Your task to perform on an android device: Is it going to rain this weekend? Image 0: 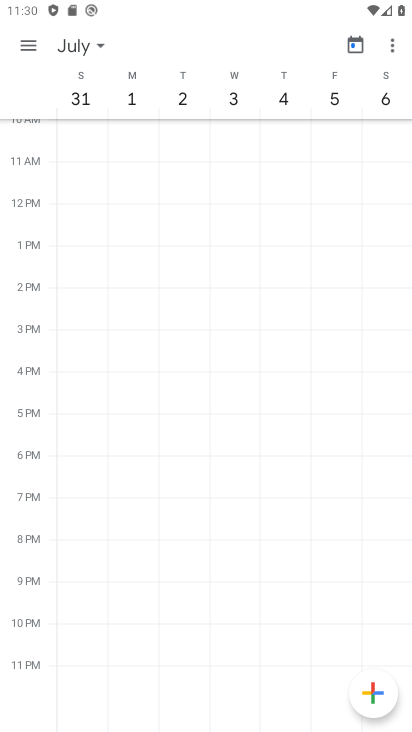
Step 0: press home button
Your task to perform on an android device: Is it going to rain this weekend? Image 1: 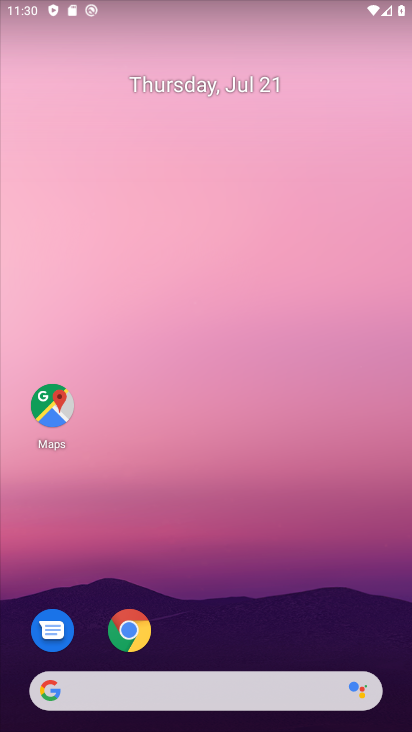
Step 1: click (44, 684)
Your task to perform on an android device: Is it going to rain this weekend? Image 2: 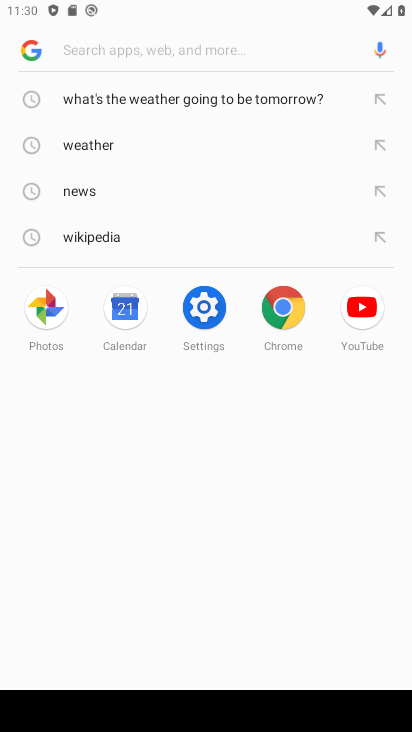
Step 2: type "Is it going to rain this weekend?"
Your task to perform on an android device: Is it going to rain this weekend? Image 3: 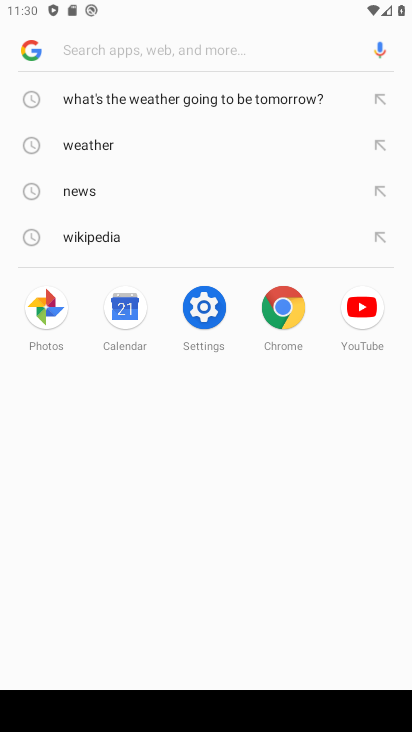
Step 3: click (140, 47)
Your task to perform on an android device: Is it going to rain this weekend? Image 4: 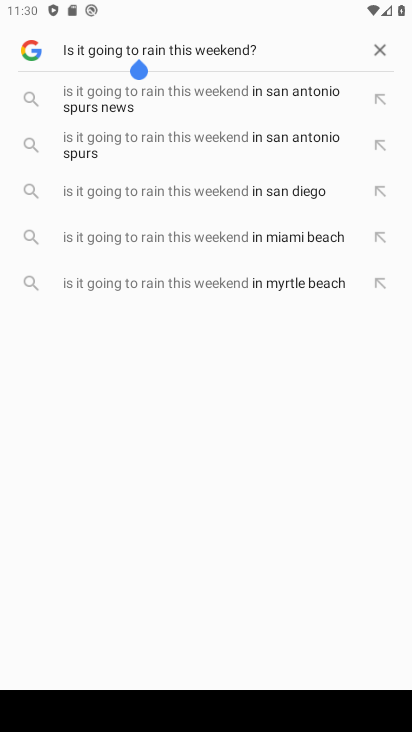
Step 4: press enter
Your task to perform on an android device: Is it going to rain this weekend? Image 5: 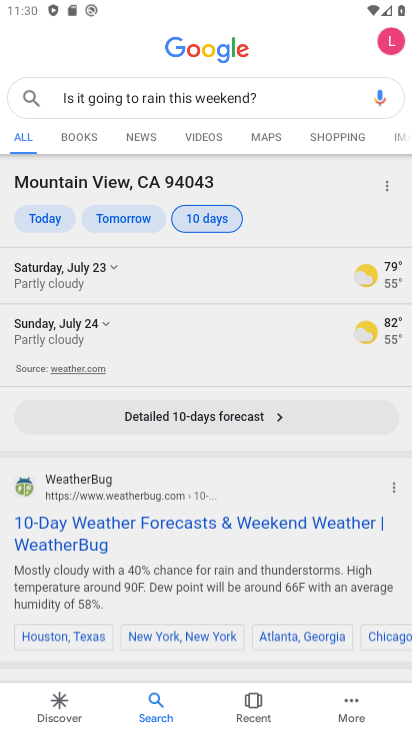
Step 5: task complete